Your task to perform on an android device: turn on showing notifications on the lock screen Image 0: 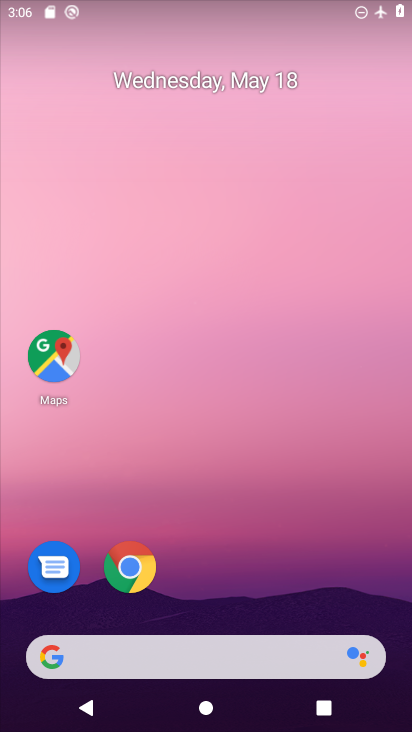
Step 0: drag from (263, 618) to (275, 148)
Your task to perform on an android device: turn on showing notifications on the lock screen Image 1: 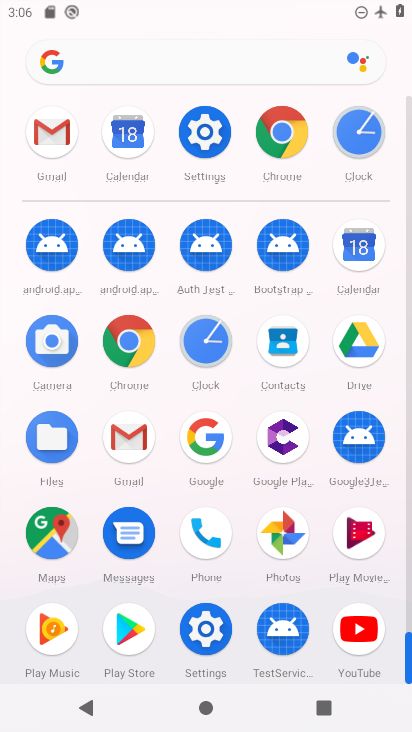
Step 1: click (206, 127)
Your task to perform on an android device: turn on showing notifications on the lock screen Image 2: 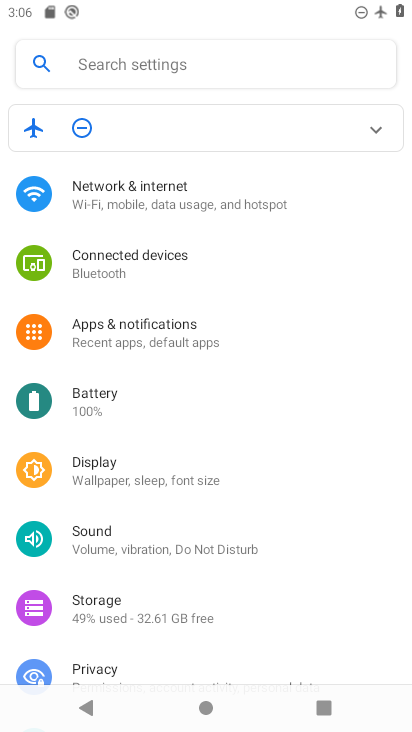
Step 2: click (175, 188)
Your task to perform on an android device: turn on showing notifications on the lock screen Image 3: 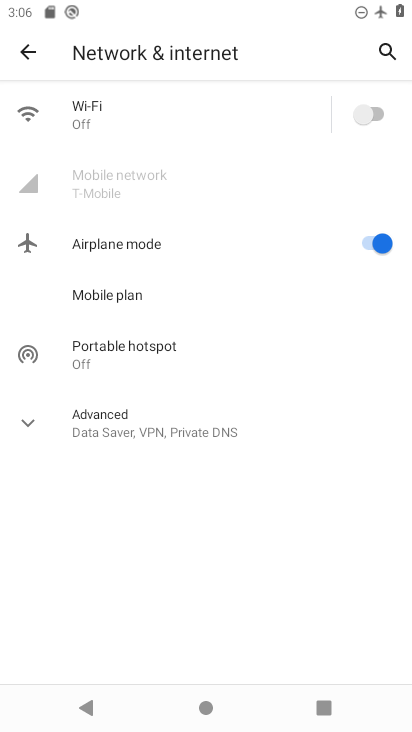
Step 3: click (33, 43)
Your task to perform on an android device: turn on showing notifications on the lock screen Image 4: 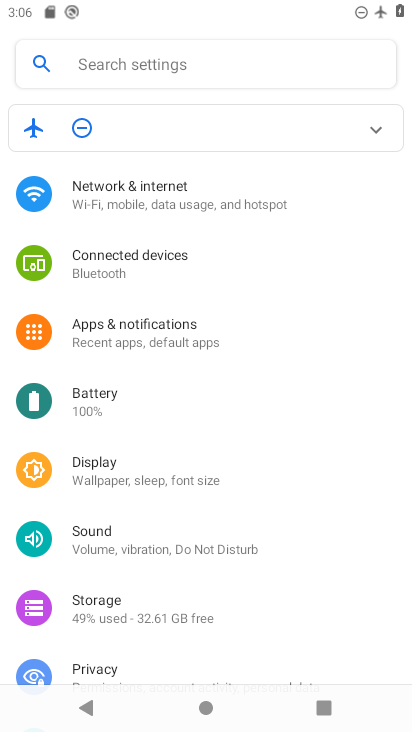
Step 4: click (164, 320)
Your task to perform on an android device: turn on showing notifications on the lock screen Image 5: 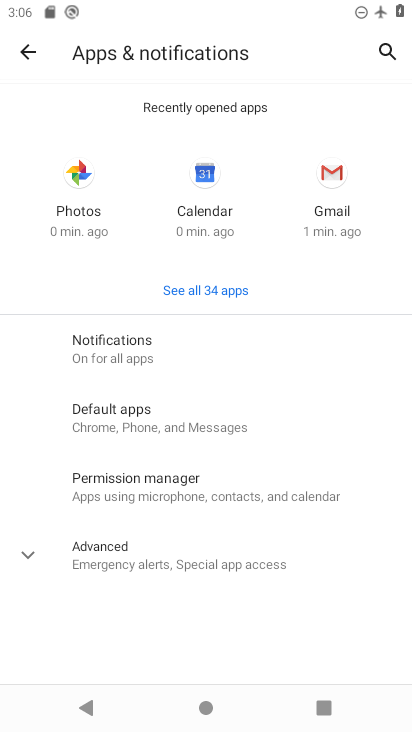
Step 5: click (171, 349)
Your task to perform on an android device: turn on showing notifications on the lock screen Image 6: 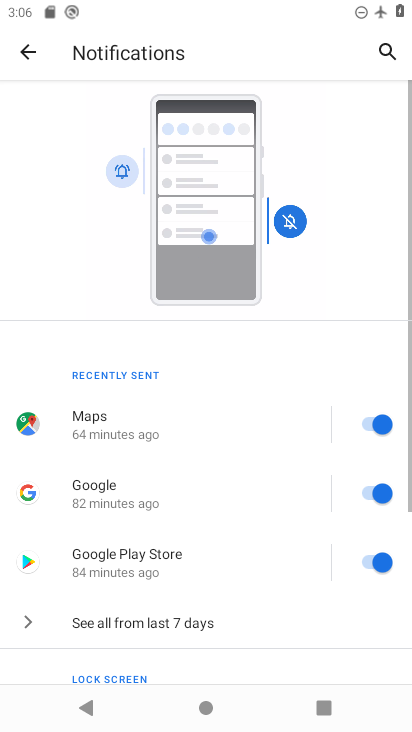
Step 6: drag from (182, 632) to (208, 372)
Your task to perform on an android device: turn on showing notifications on the lock screen Image 7: 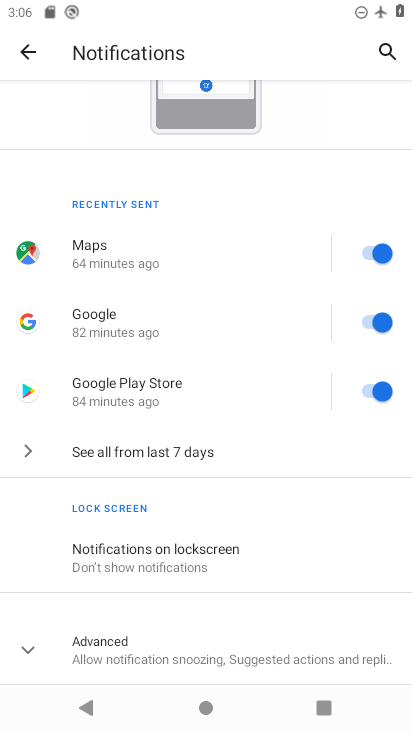
Step 7: click (123, 544)
Your task to perform on an android device: turn on showing notifications on the lock screen Image 8: 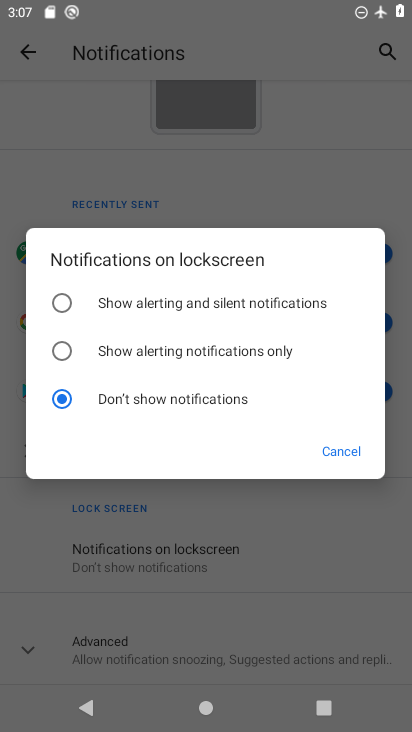
Step 8: click (112, 301)
Your task to perform on an android device: turn on showing notifications on the lock screen Image 9: 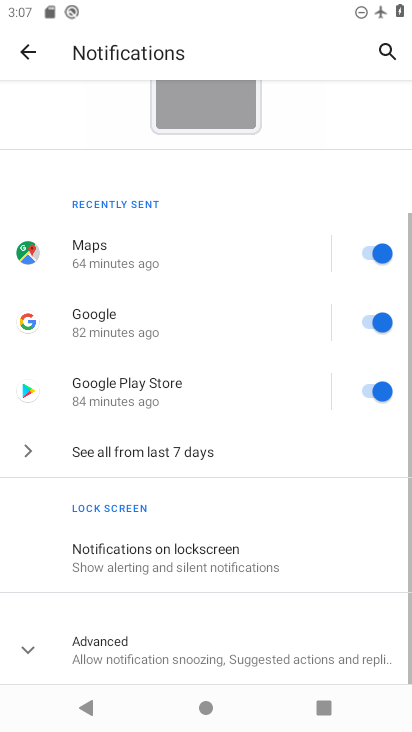
Step 9: task complete